Your task to perform on an android device: Go to Wikipedia Image 0: 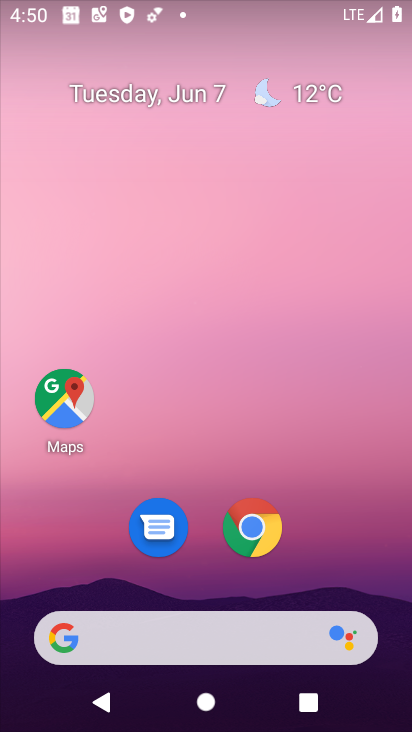
Step 0: drag from (325, 547) to (252, 185)
Your task to perform on an android device: Go to Wikipedia Image 1: 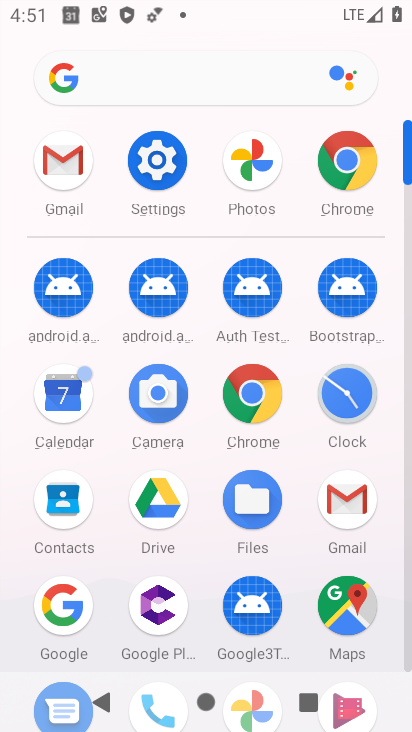
Step 1: drag from (304, 529) to (297, 277)
Your task to perform on an android device: Go to Wikipedia Image 2: 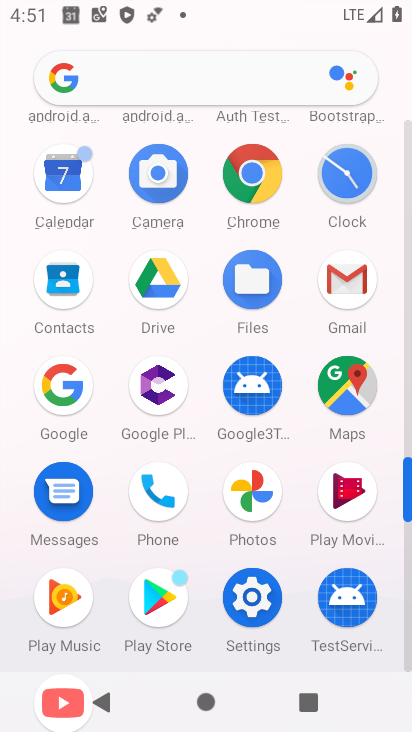
Step 2: click (59, 385)
Your task to perform on an android device: Go to Wikipedia Image 3: 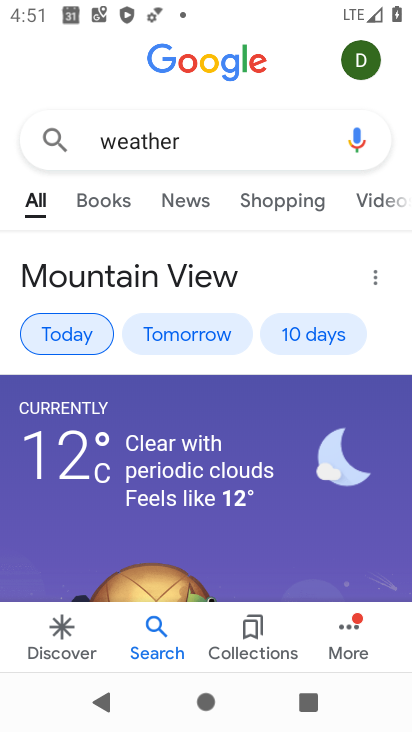
Step 3: click (242, 126)
Your task to perform on an android device: Go to Wikipedia Image 4: 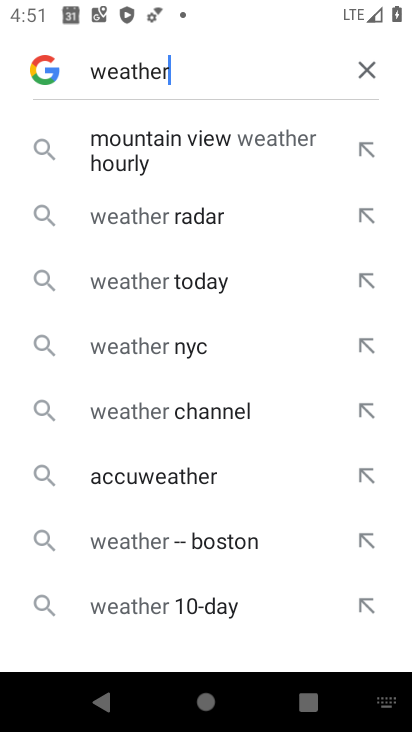
Step 4: click (370, 66)
Your task to perform on an android device: Go to Wikipedia Image 5: 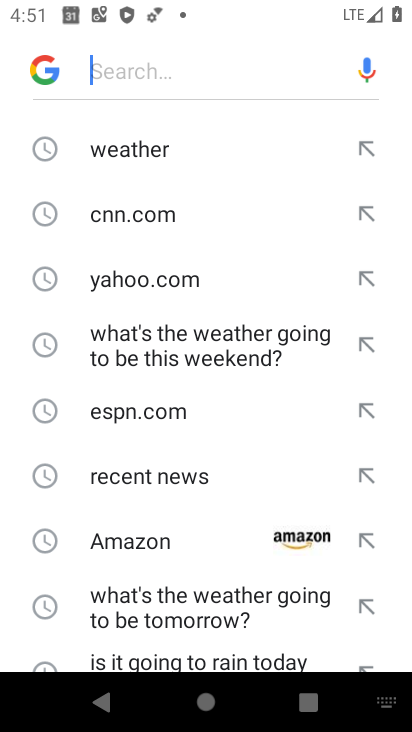
Step 5: type "Wikipedia"
Your task to perform on an android device: Go to Wikipedia Image 6: 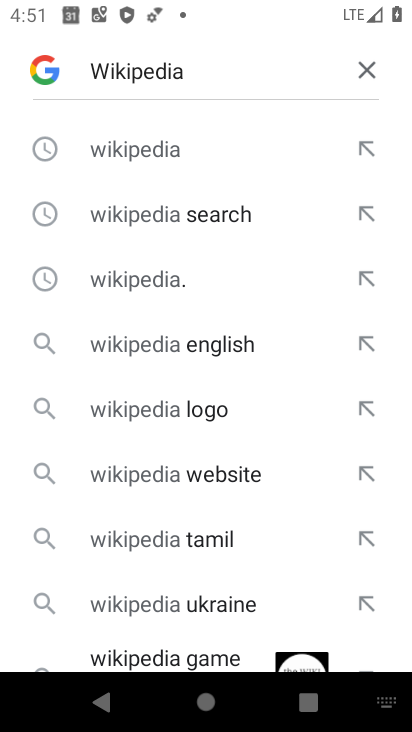
Step 6: click (136, 140)
Your task to perform on an android device: Go to Wikipedia Image 7: 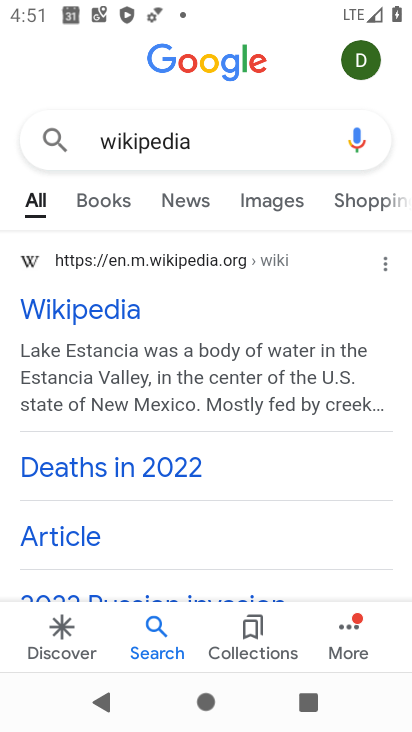
Step 7: click (134, 293)
Your task to perform on an android device: Go to Wikipedia Image 8: 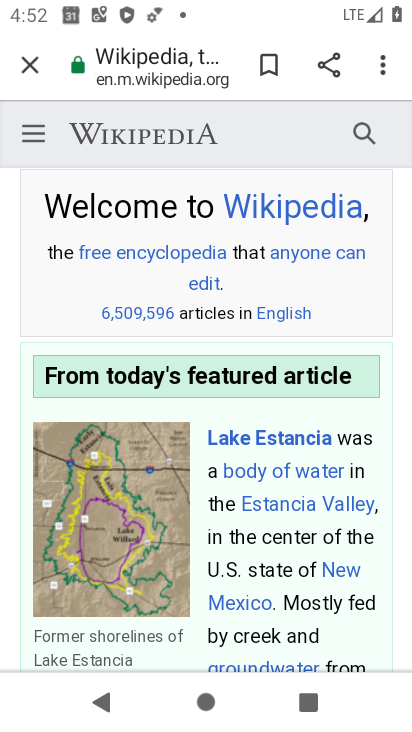
Step 8: task complete